Your task to perform on an android device: Clear all items from cart on ebay. Search for duracell triple a on ebay, select the first entry, and add it to the cart. Image 0: 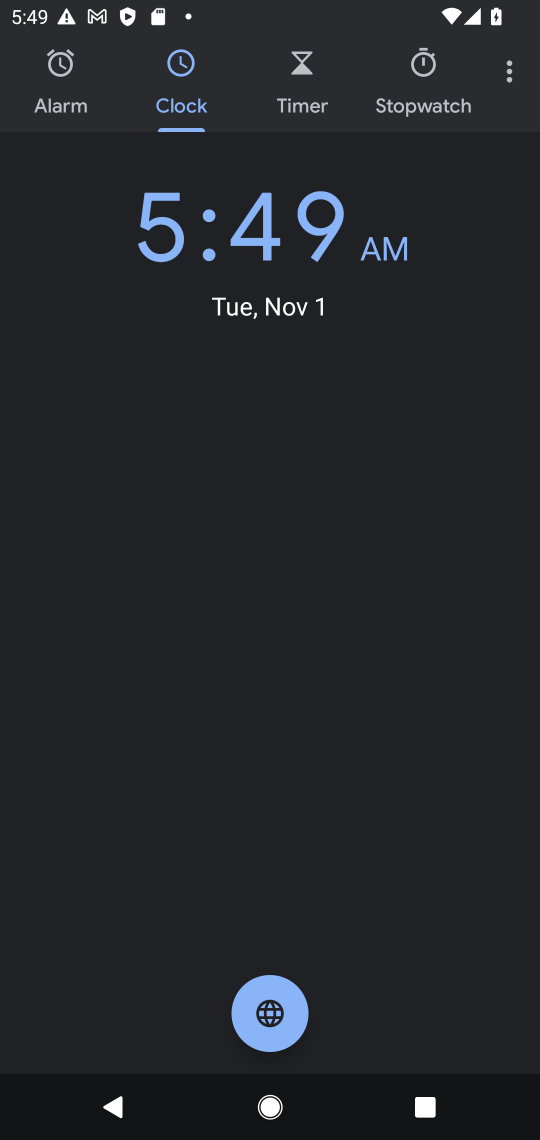
Step 0: press home button
Your task to perform on an android device: Clear all items from cart on ebay. Search for duracell triple a on ebay, select the first entry, and add it to the cart. Image 1: 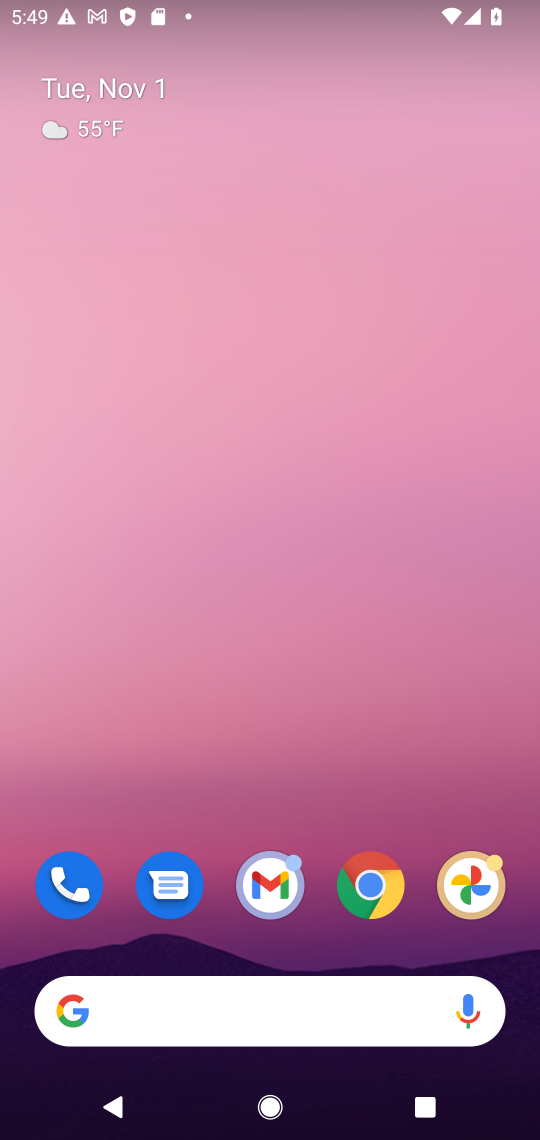
Step 1: click (367, 888)
Your task to perform on an android device: Clear all items from cart on ebay. Search for duracell triple a on ebay, select the first entry, and add it to the cart. Image 2: 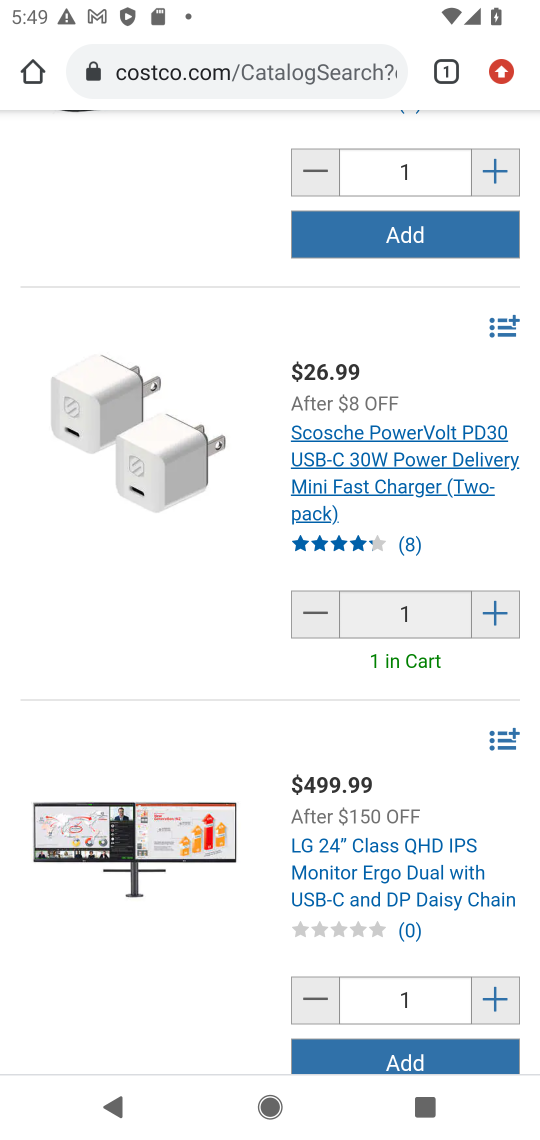
Step 2: click (199, 49)
Your task to perform on an android device: Clear all items from cart on ebay. Search for duracell triple a on ebay, select the first entry, and add it to the cart. Image 3: 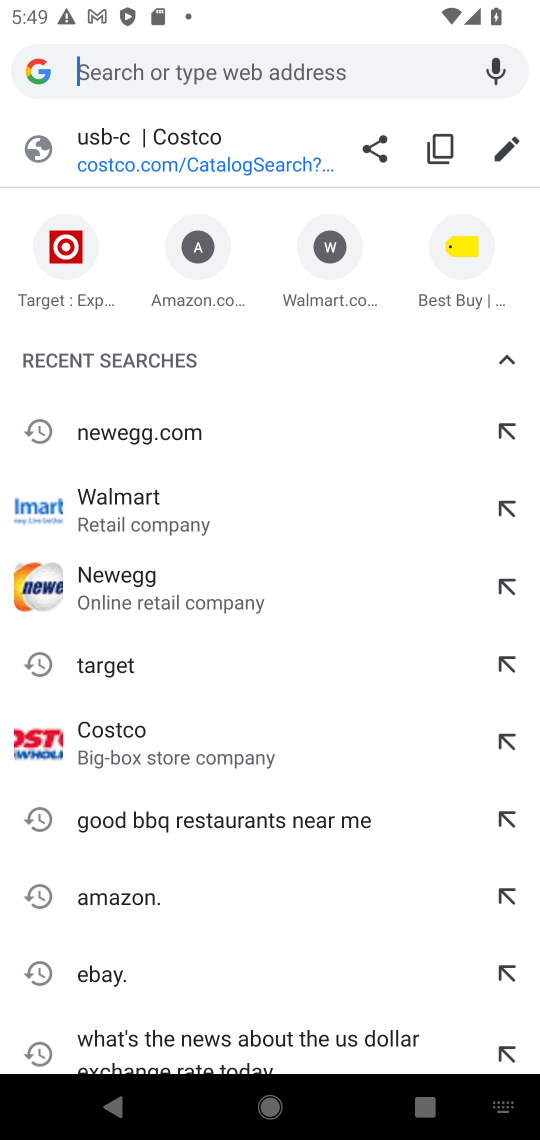
Step 3: type "ebay"
Your task to perform on an android device: Clear all items from cart on ebay. Search for duracell triple a on ebay, select the first entry, and add it to the cart. Image 4: 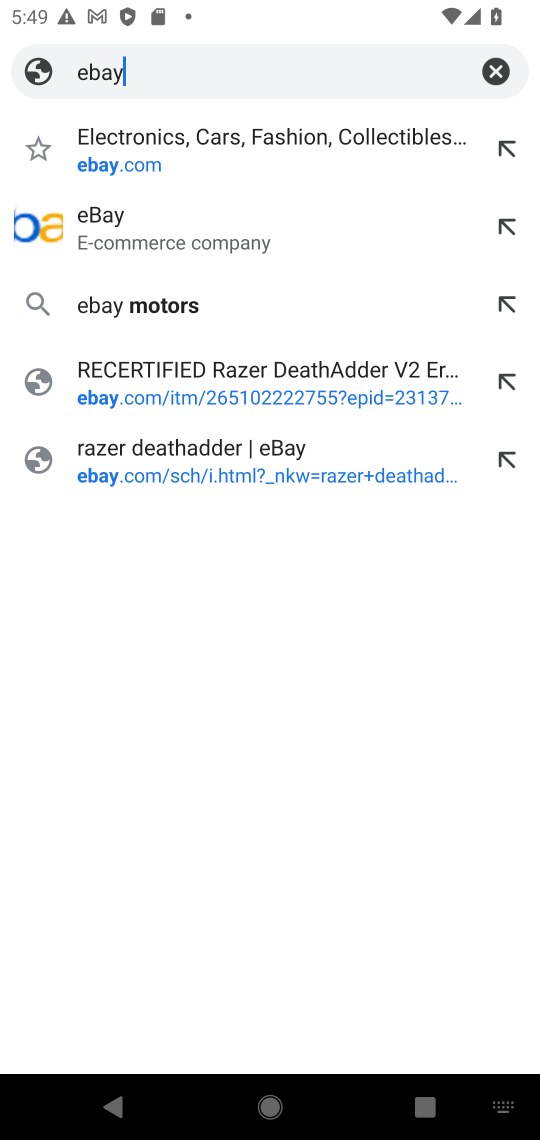
Step 4: click (100, 220)
Your task to perform on an android device: Clear all items from cart on ebay. Search for duracell triple a on ebay, select the first entry, and add it to the cart. Image 5: 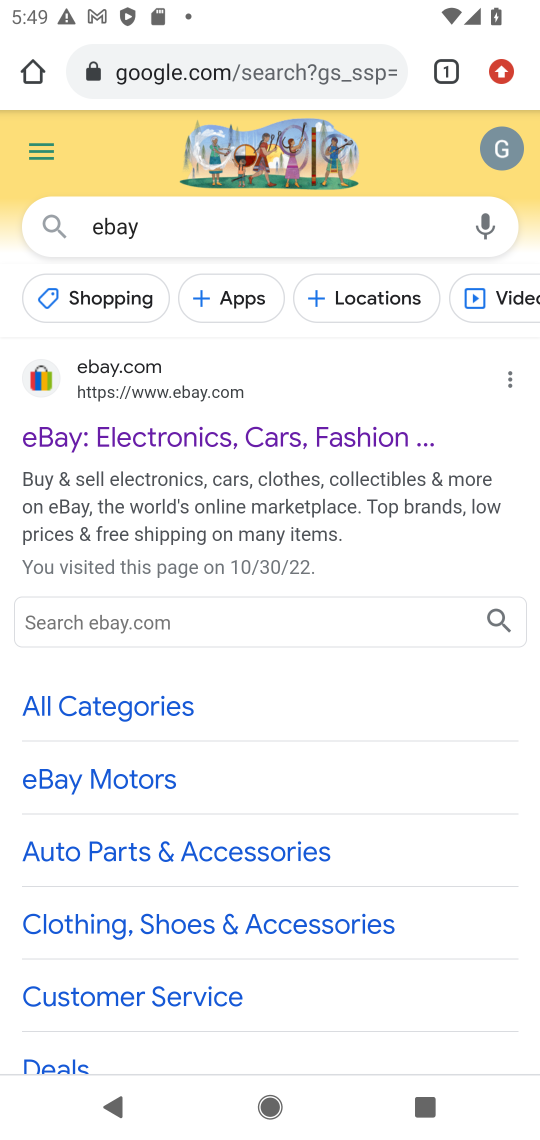
Step 5: click (175, 436)
Your task to perform on an android device: Clear all items from cart on ebay. Search for duracell triple a on ebay, select the first entry, and add it to the cart. Image 6: 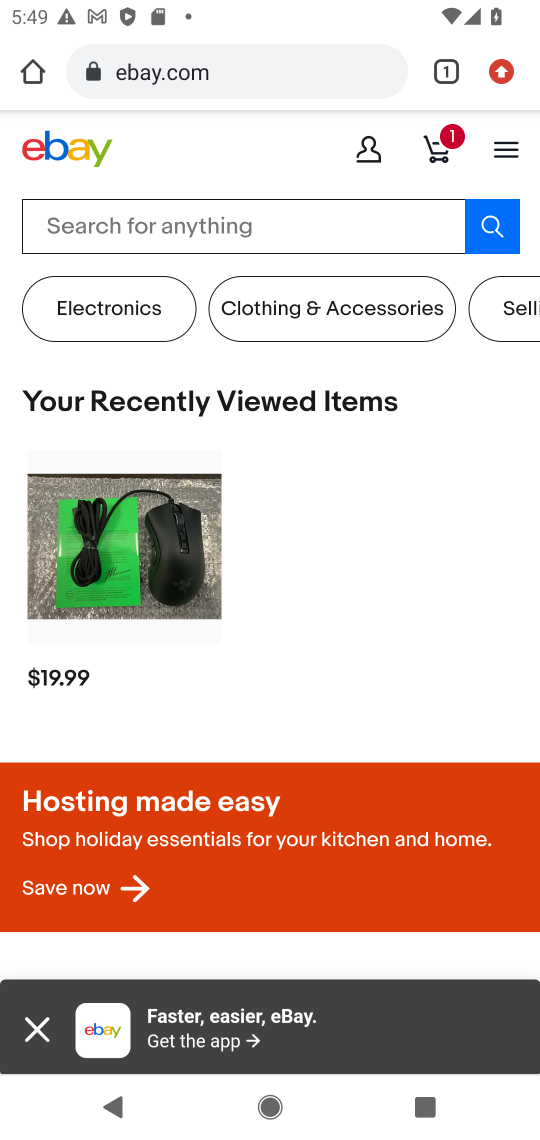
Step 6: click (435, 150)
Your task to perform on an android device: Clear all items from cart on ebay. Search for duracell triple a on ebay, select the first entry, and add it to the cart. Image 7: 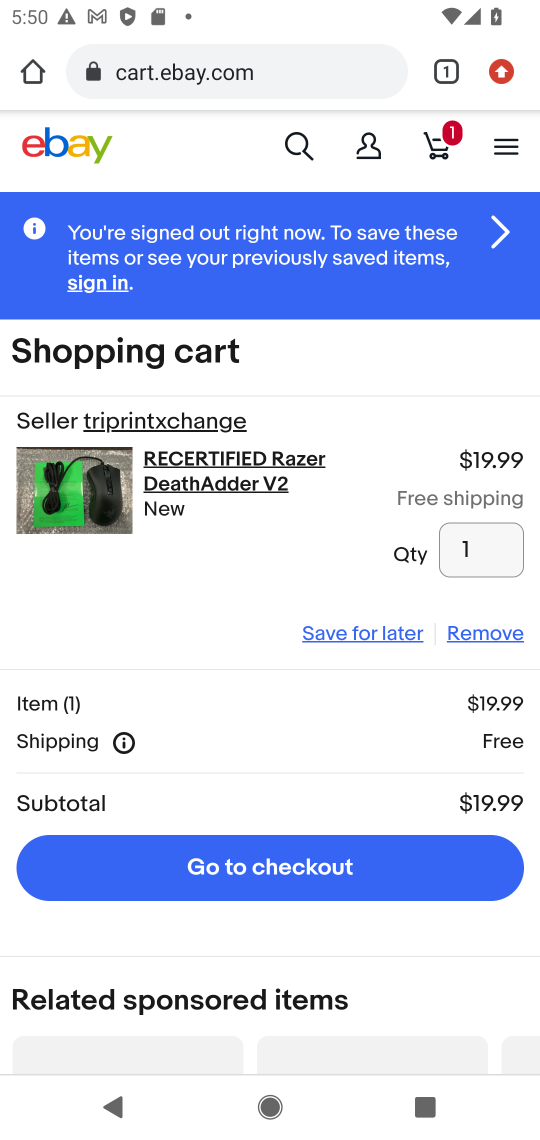
Step 7: click (488, 634)
Your task to perform on an android device: Clear all items from cart on ebay. Search for duracell triple a on ebay, select the first entry, and add it to the cart. Image 8: 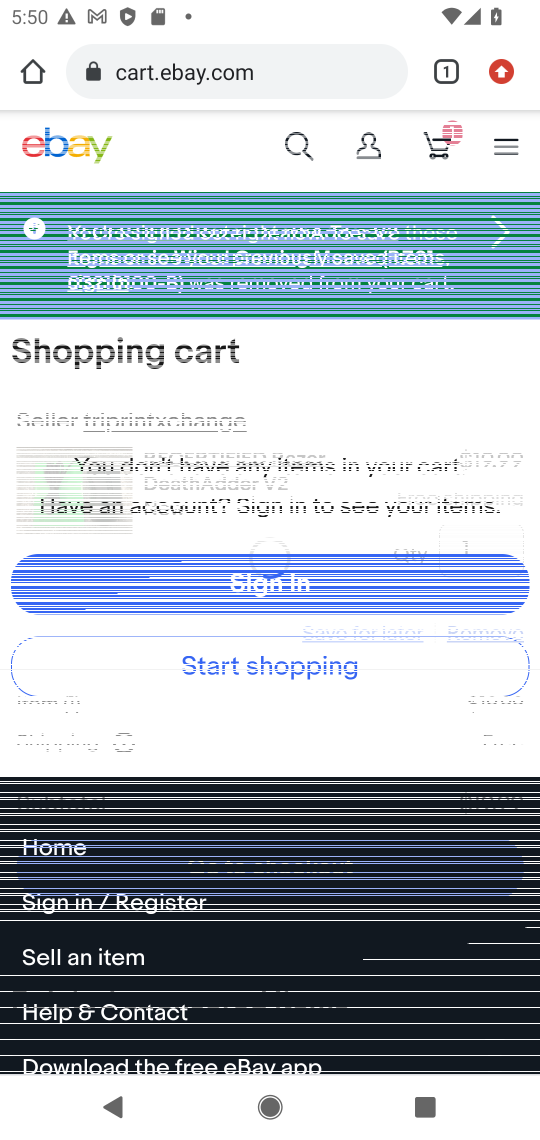
Step 8: click (286, 666)
Your task to perform on an android device: Clear all items from cart on ebay. Search for duracell triple a on ebay, select the first entry, and add it to the cart. Image 9: 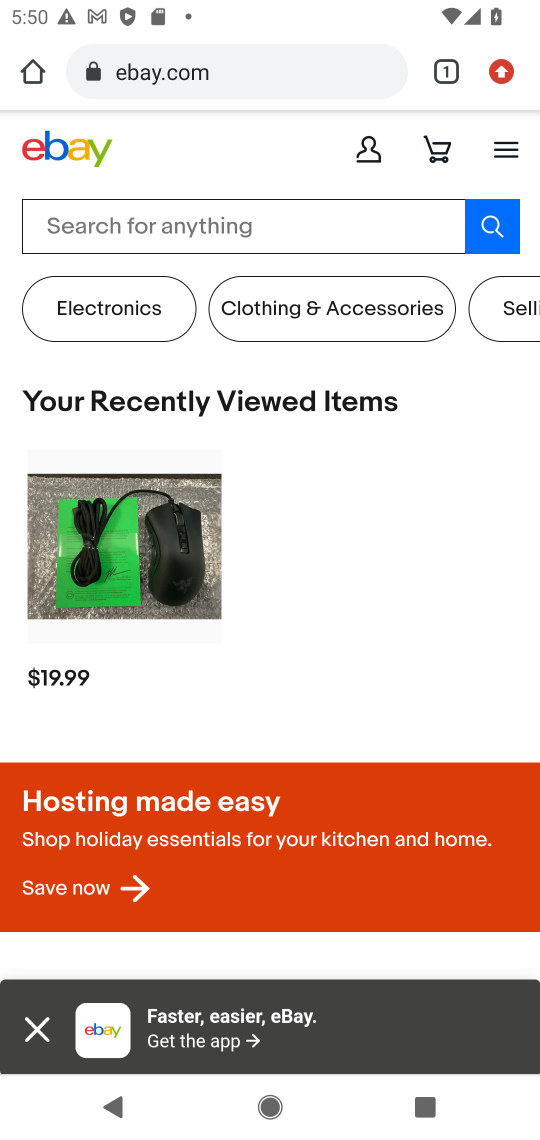
Step 9: click (174, 226)
Your task to perform on an android device: Clear all items from cart on ebay. Search for duracell triple a on ebay, select the first entry, and add it to the cart. Image 10: 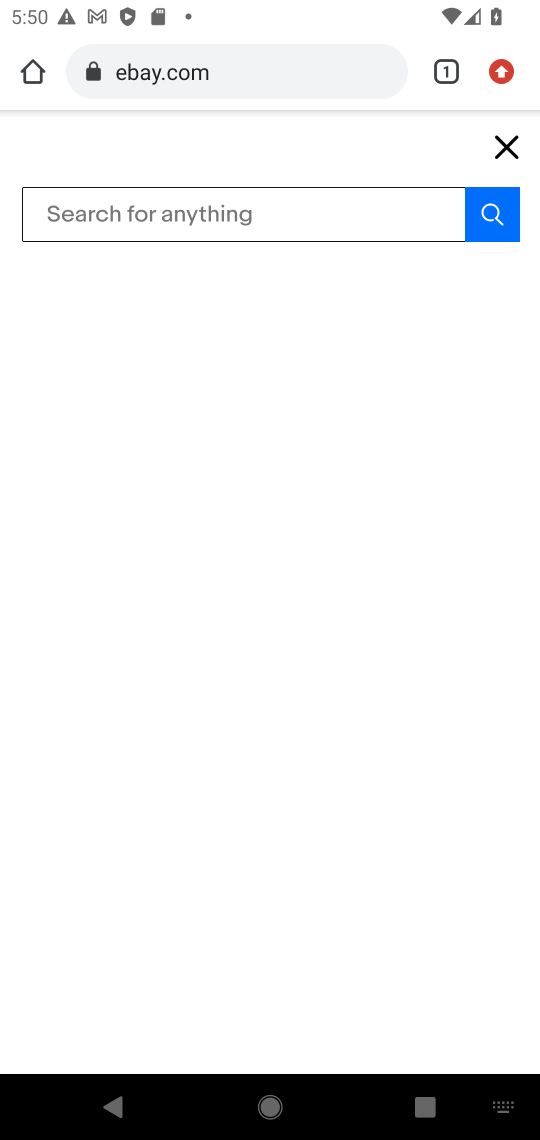
Step 10: type "duracell triple"
Your task to perform on an android device: Clear all items from cart on ebay. Search for duracell triple a on ebay, select the first entry, and add it to the cart. Image 11: 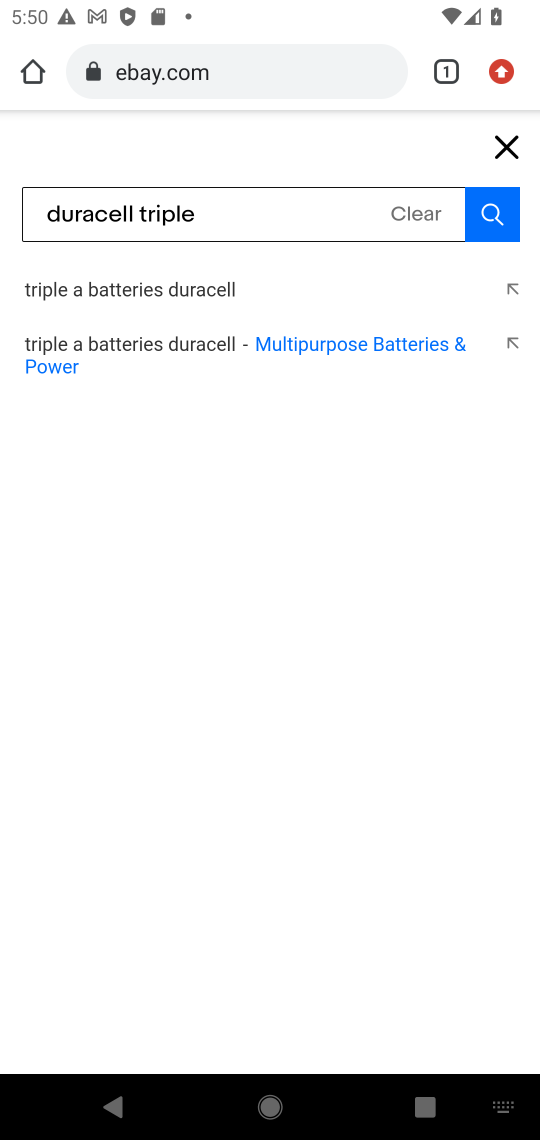
Step 11: click (485, 216)
Your task to perform on an android device: Clear all items from cart on ebay. Search for duracell triple a on ebay, select the first entry, and add it to the cart. Image 12: 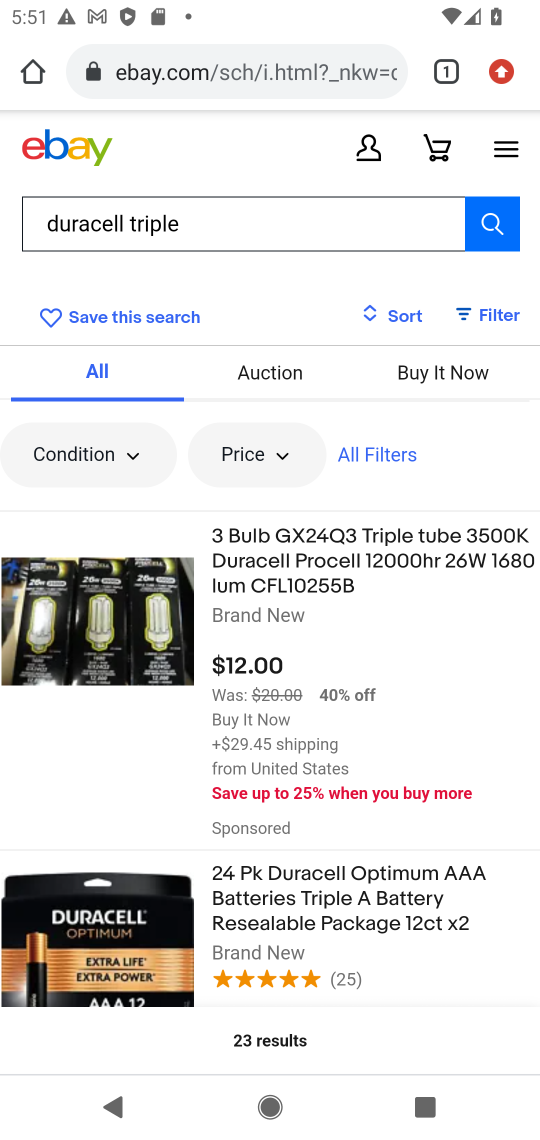
Step 12: click (353, 554)
Your task to perform on an android device: Clear all items from cart on ebay. Search for duracell triple a on ebay, select the first entry, and add it to the cart. Image 13: 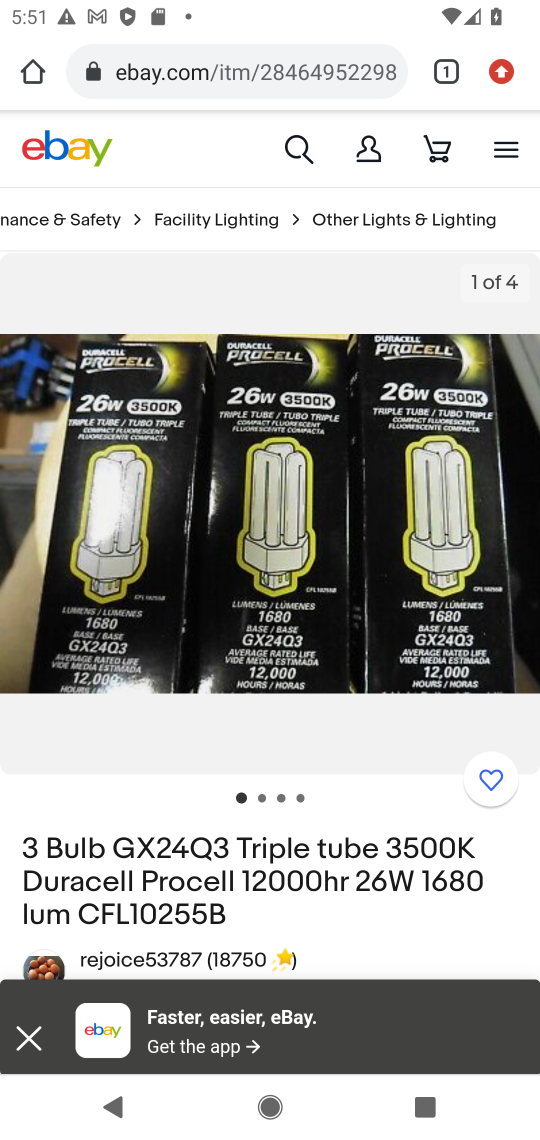
Step 13: press back button
Your task to perform on an android device: Clear all items from cart on ebay. Search for duracell triple a on ebay, select the first entry, and add it to the cart. Image 14: 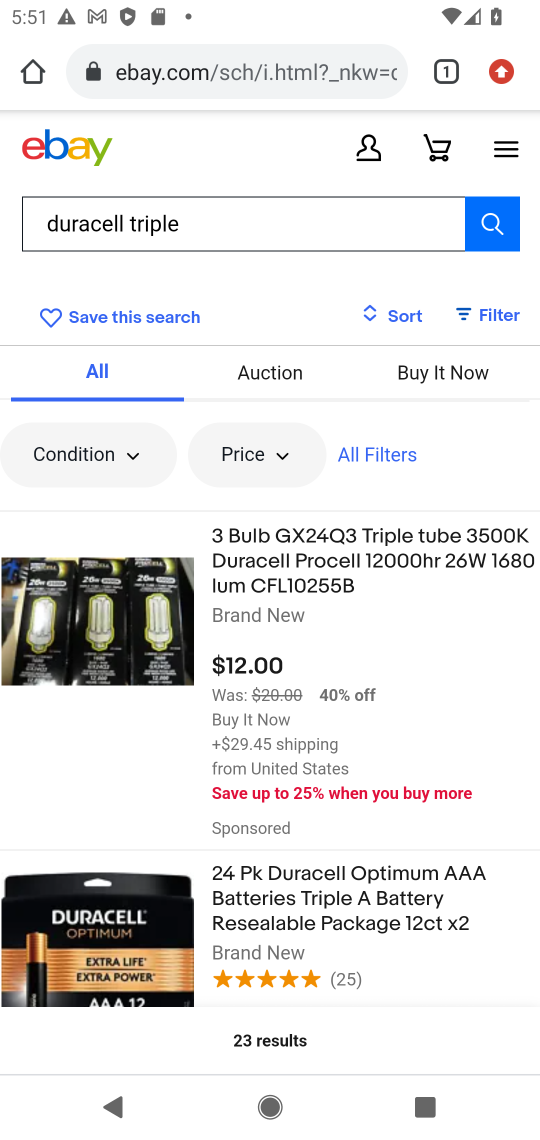
Step 14: click (241, 227)
Your task to perform on an android device: Clear all items from cart on ebay. Search for duracell triple a on ebay, select the first entry, and add it to the cart. Image 15: 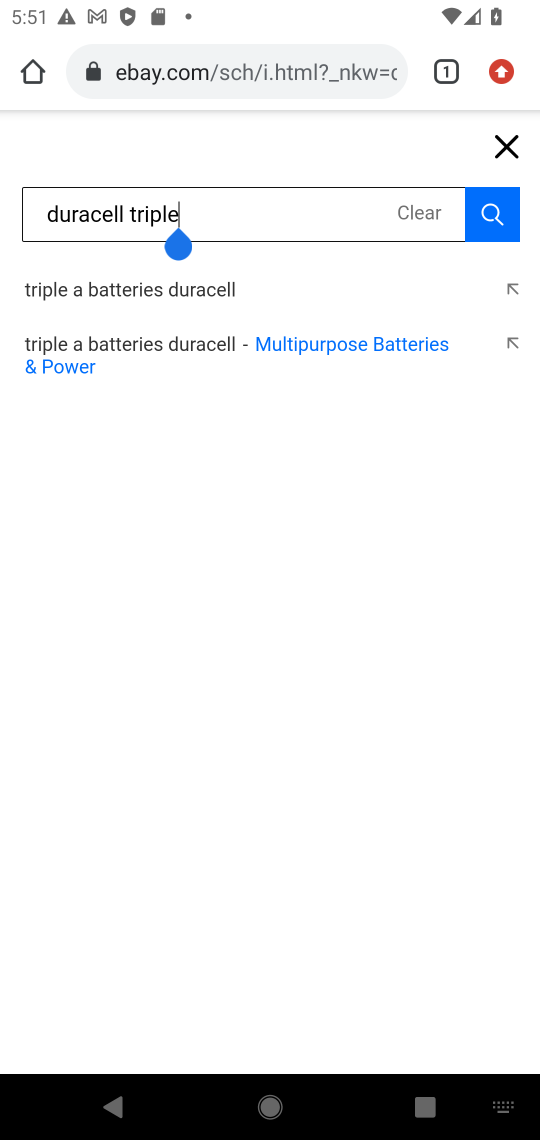
Step 15: click (101, 284)
Your task to perform on an android device: Clear all items from cart on ebay. Search for duracell triple a on ebay, select the first entry, and add it to the cart. Image 16: 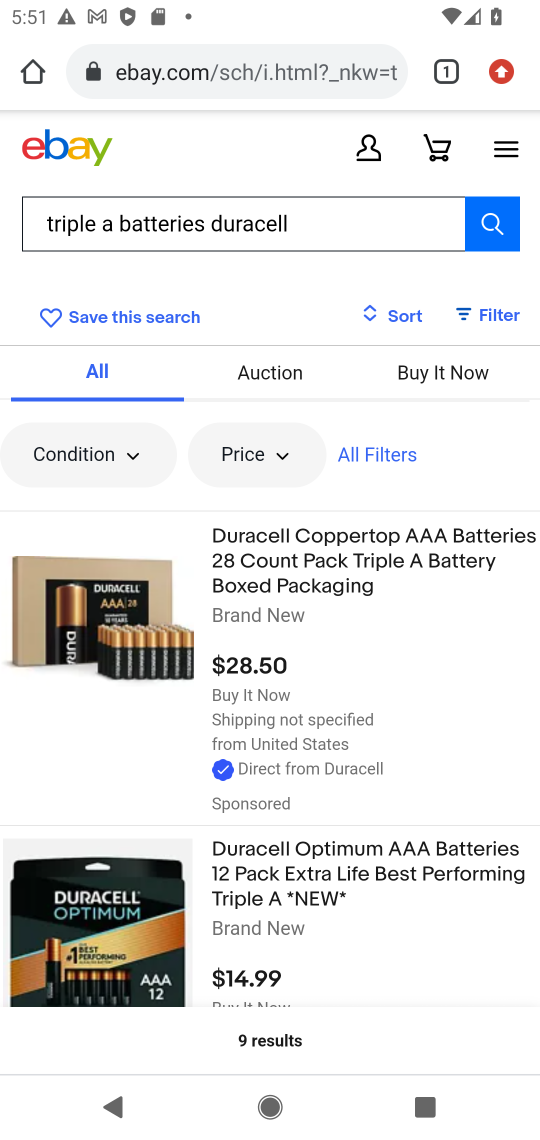
Step 16: click (332, 559)
Your task to perform on an android device: Clear all items from cart on ebay. Search for duracell triple a on ebay, select the first entry, and add it to the cart. Image 17: 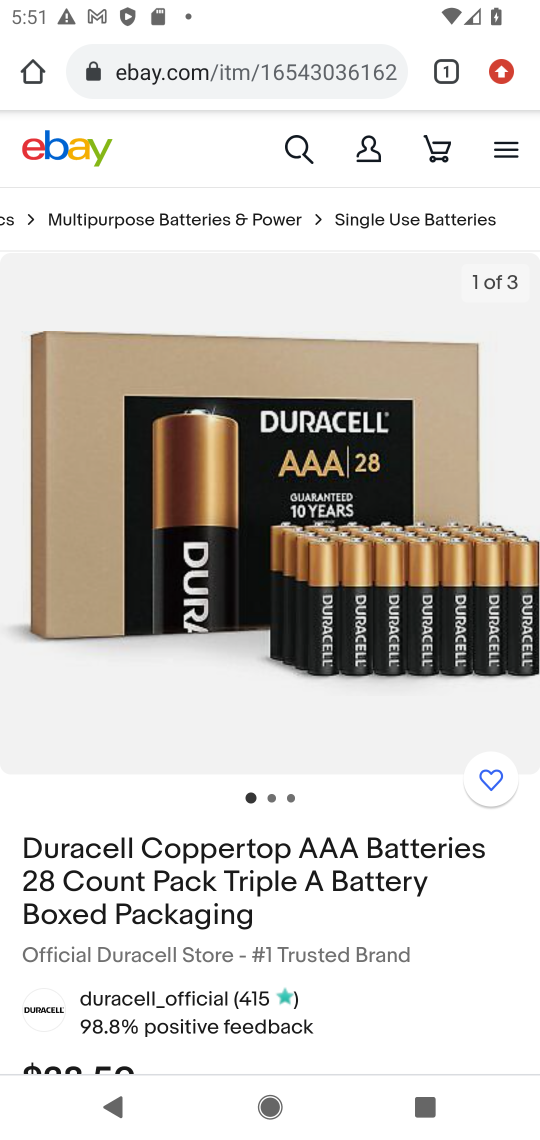
Step 17: drag from (348, 882) to (311, 429)
Your task to perform on an android device: Clear all items from cart on ebay. Search for duracell triple a on ebay, select the first entry, and add it to the cart. Image 18: 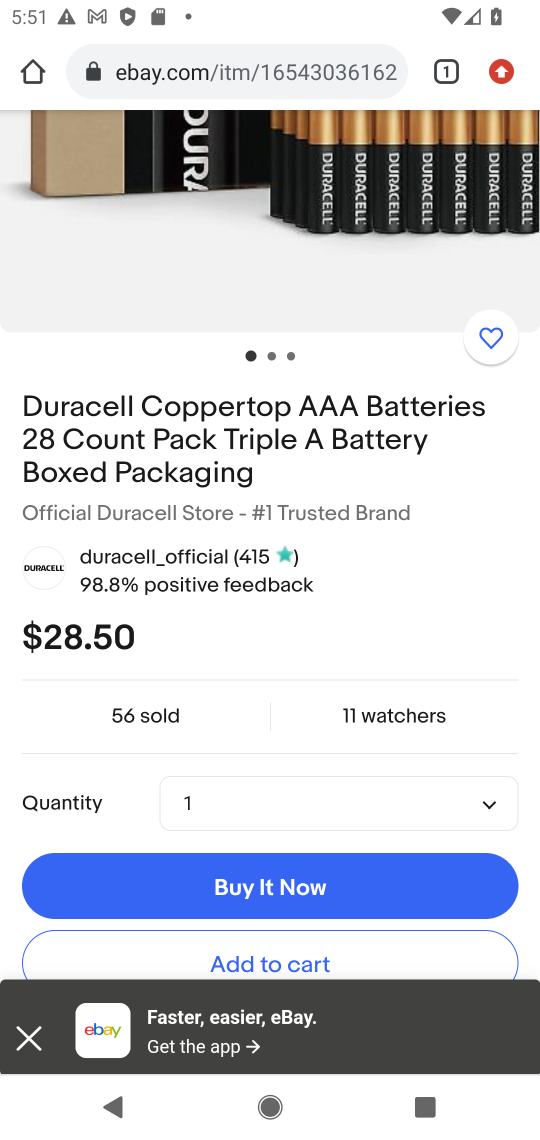
Step 18: click (265, 952)
Your task to perform on an android device: Clear all items from cart on ebay. Search for duracell triple a on ebay, select the first entry, and add it to the cart. Image 19: 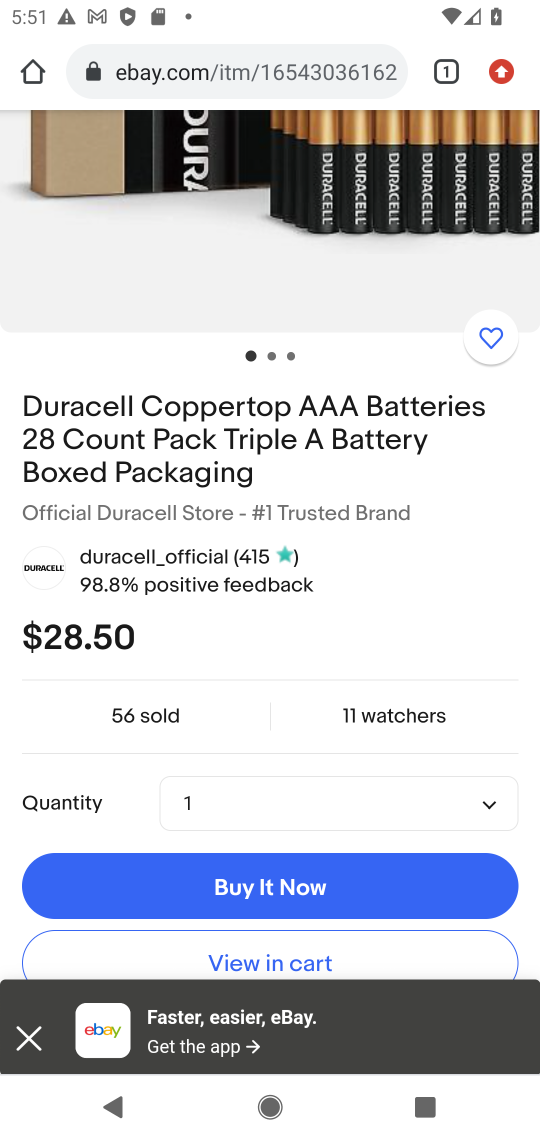
Step 19: click (237, 957)
Your task to perform on an android device: Clear all items from cart on ebay. Search for duracell triple a on ebay, select the first entry, and add it to the cart. Image 20: 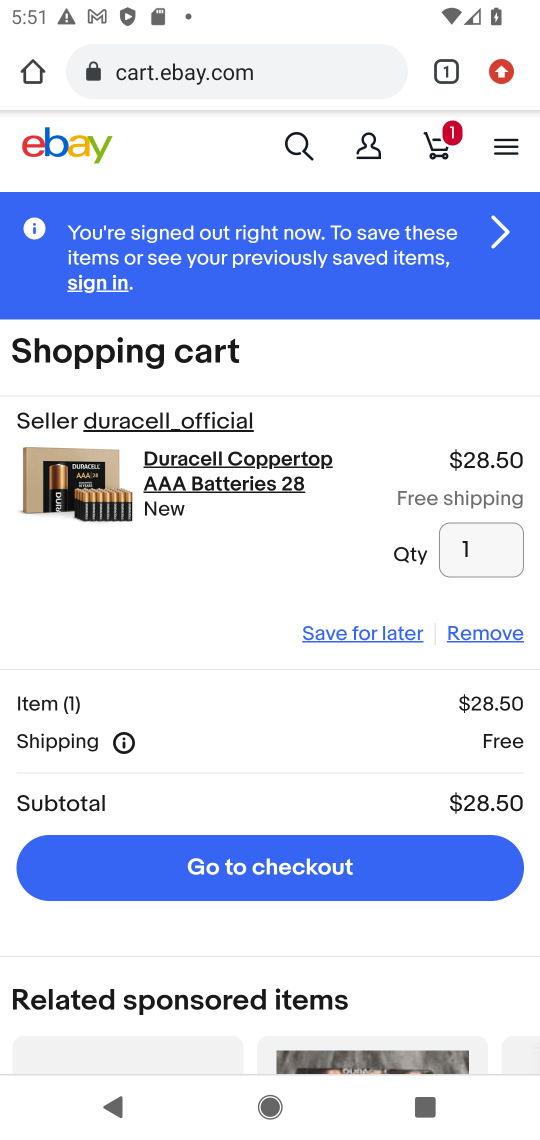
Step 20: task complete